Your task to perform on an android device: delete a single message in the gmail app Image 0: 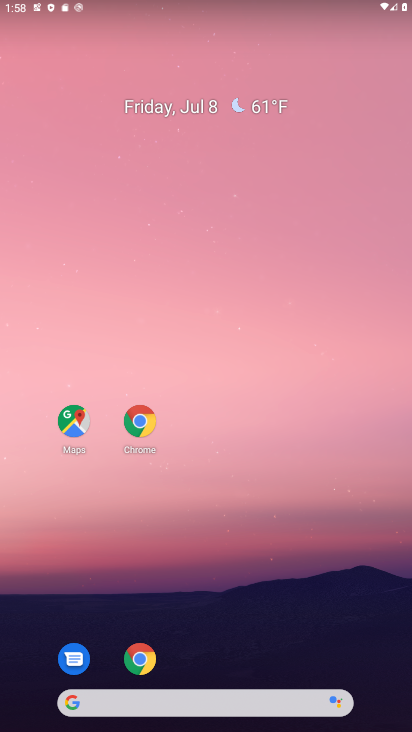
Step 0: drag from (220, 652) to (140, 79)
Your task to perform on an android device: delete a single message in the gmail app Image 1: 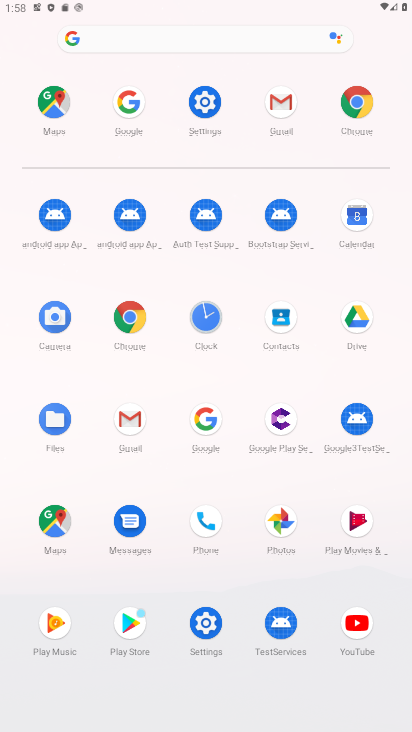
Step 1: click (118, 422)
Your task to perform on an android device: delete a single message in the gmail app Image 2: 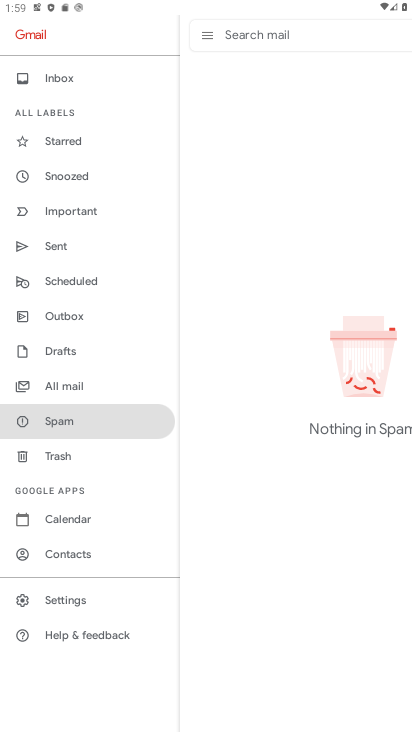
Step 2: click (66, 388)
Your task to perform on an android device: delete a single message in the gmail app Image 3: 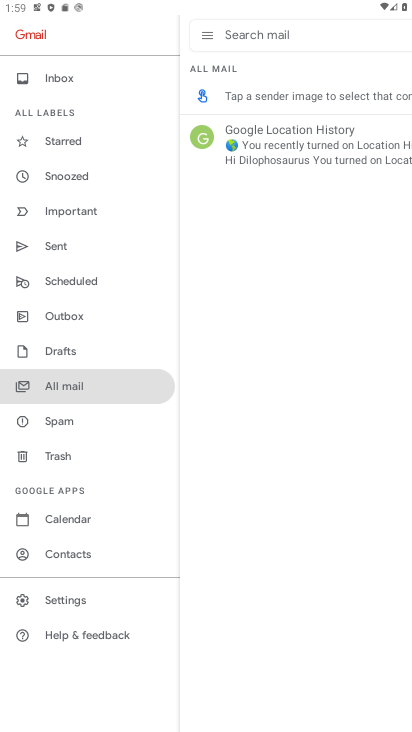
Step 3: click (261, 142)
Your task to perform on an android device: delete a single message in the gmail app Image 4: 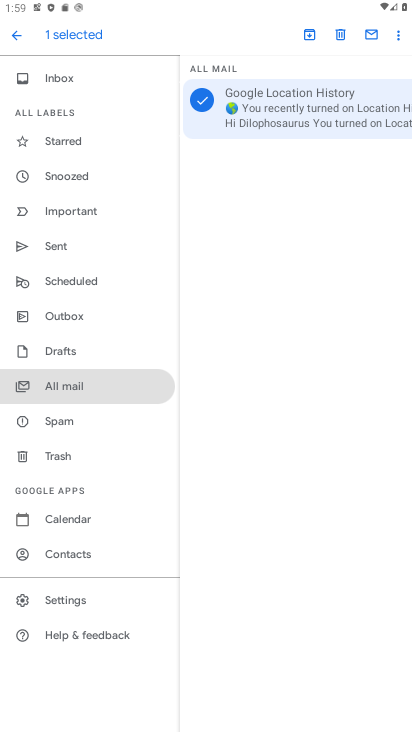
Step 4: click (341, 30)
Your task to perform on an android device: delete a single message in the gmail app Image 5: 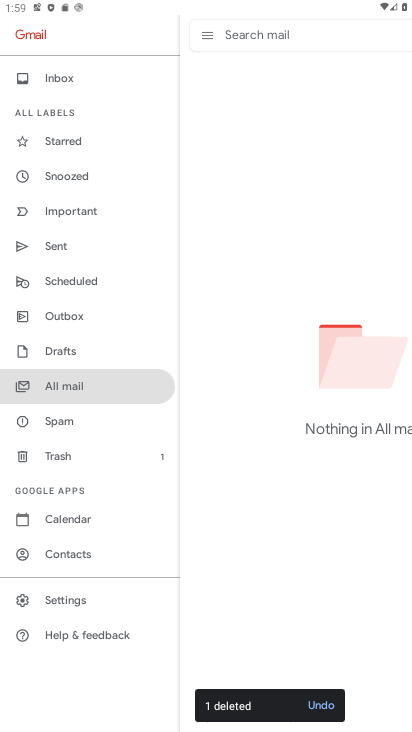
Step 5: task complete